Your task to perform on an android device: add a contact Image 0: 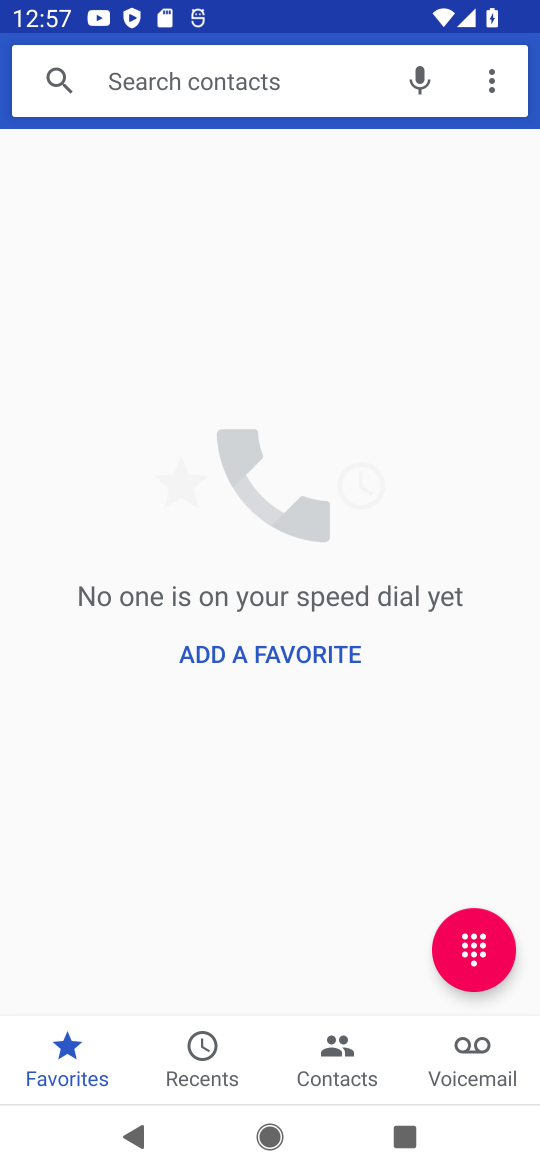
Step 0: click (304, 1060)
Your task to perform on an android device: add a contact Image 1: 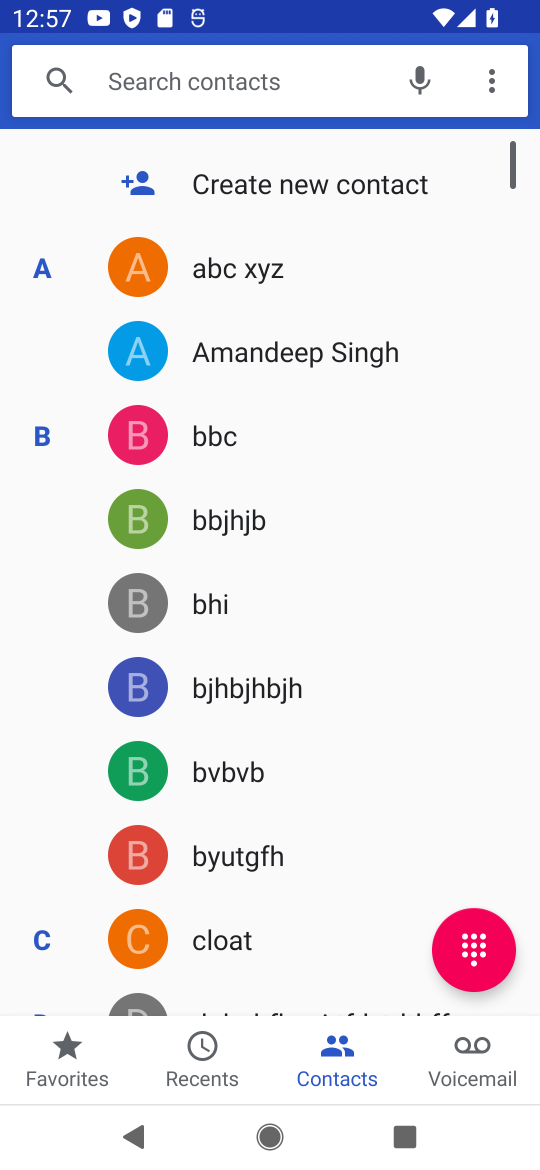
Step 1: click (464, 942)
Your task to perform on an android device: add a contact Image 2: 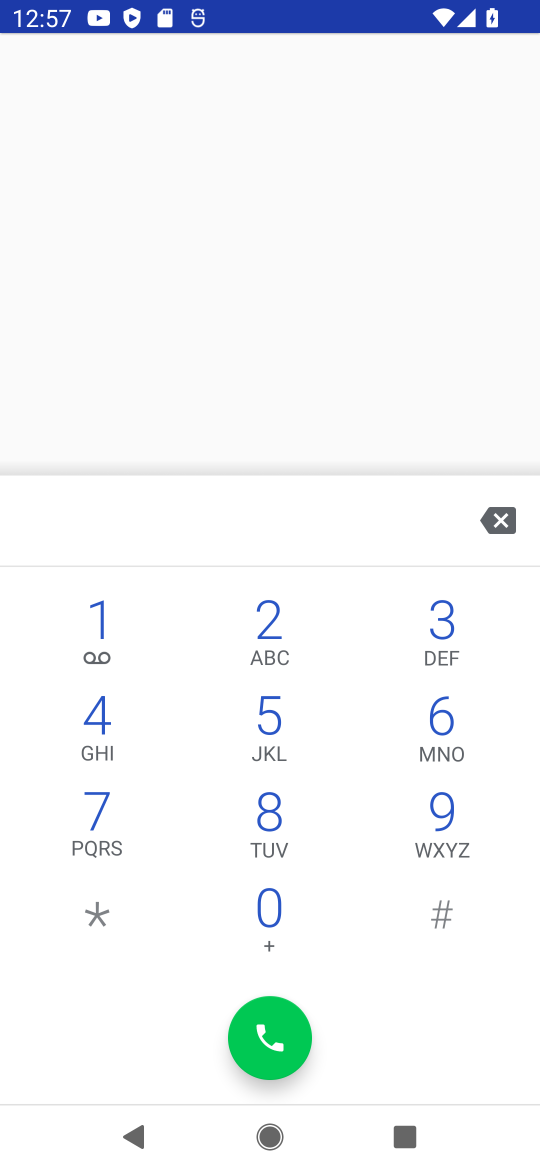
Step 2: press back button
Your task to perform on an android device: add a contact Image 3: 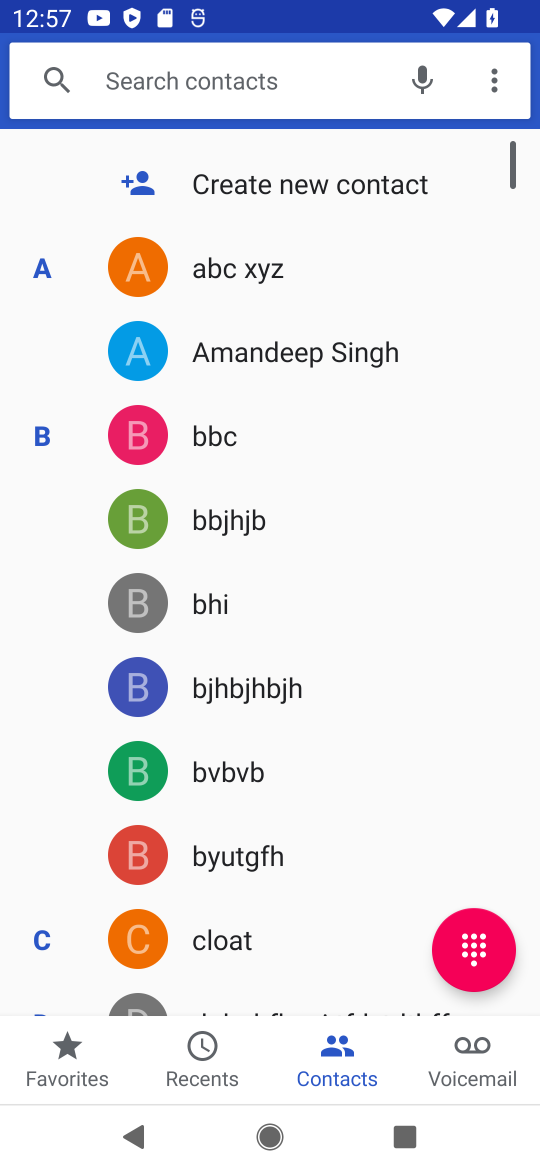
Step 3: click (262, 162)
Your task to perform on an android device: add a contact Image 4: 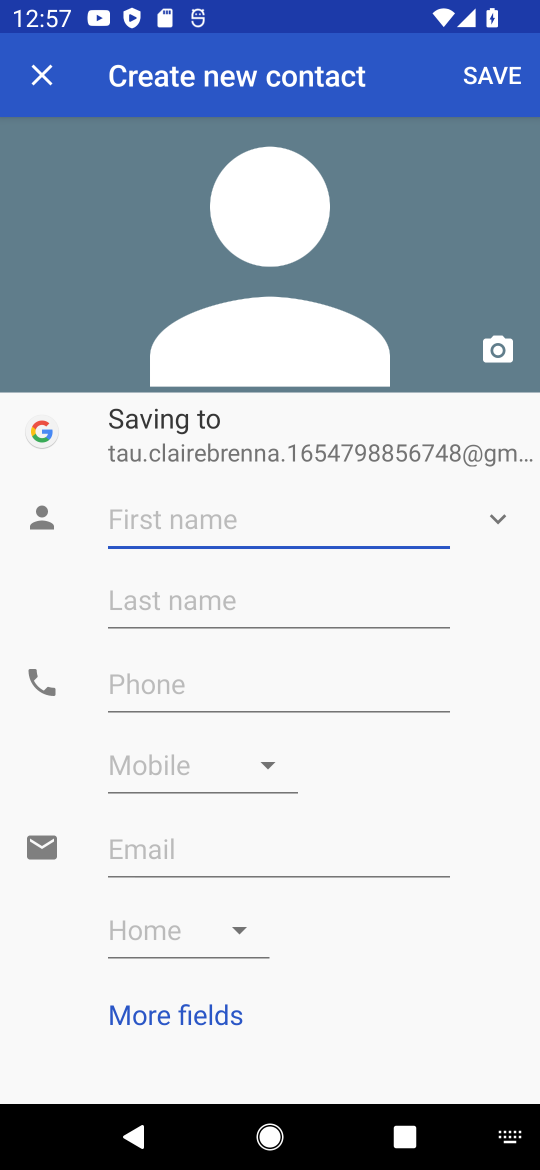
Step 4: click (160, 500)
Your task to perform on an android device: add a contact Image 5: 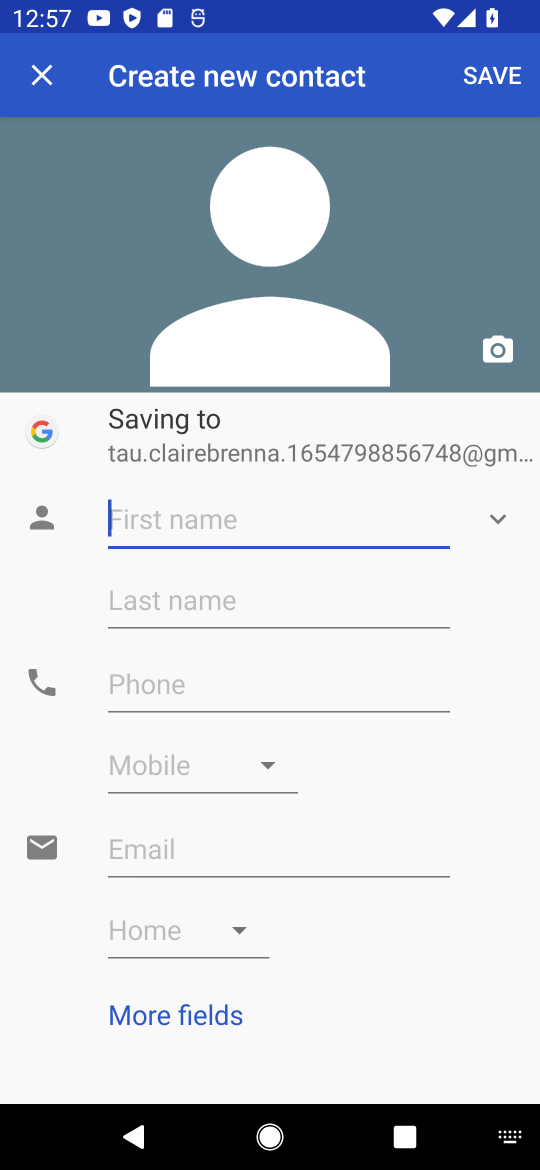
Step 5: type "fhfghf"
Your task to perform on an android device: add a contact Image 6: 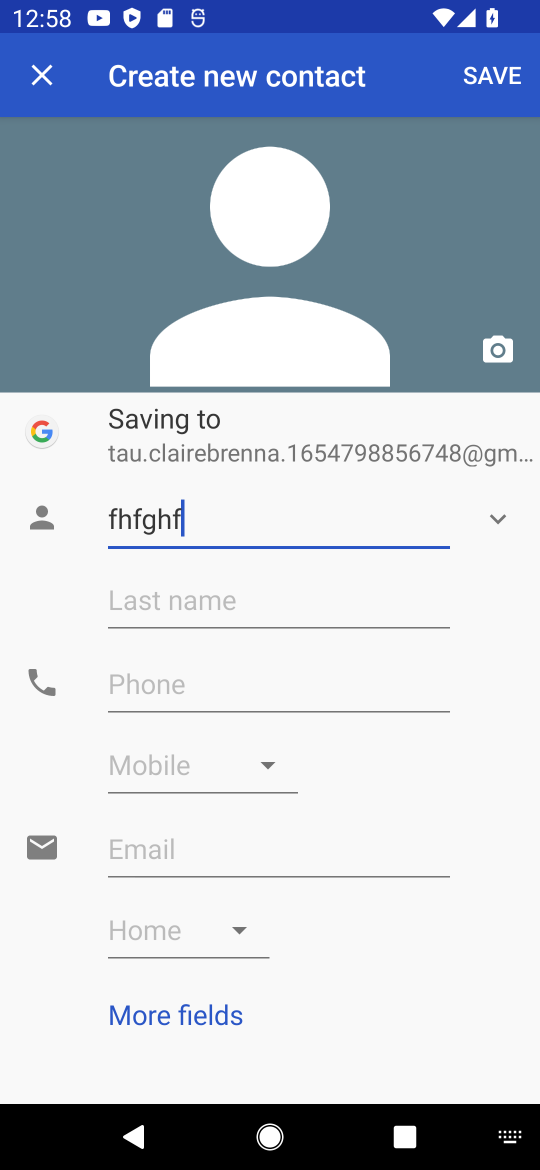
Step 6: click (157, 670)
Your task to perform on an android device: add a contact Image 7: 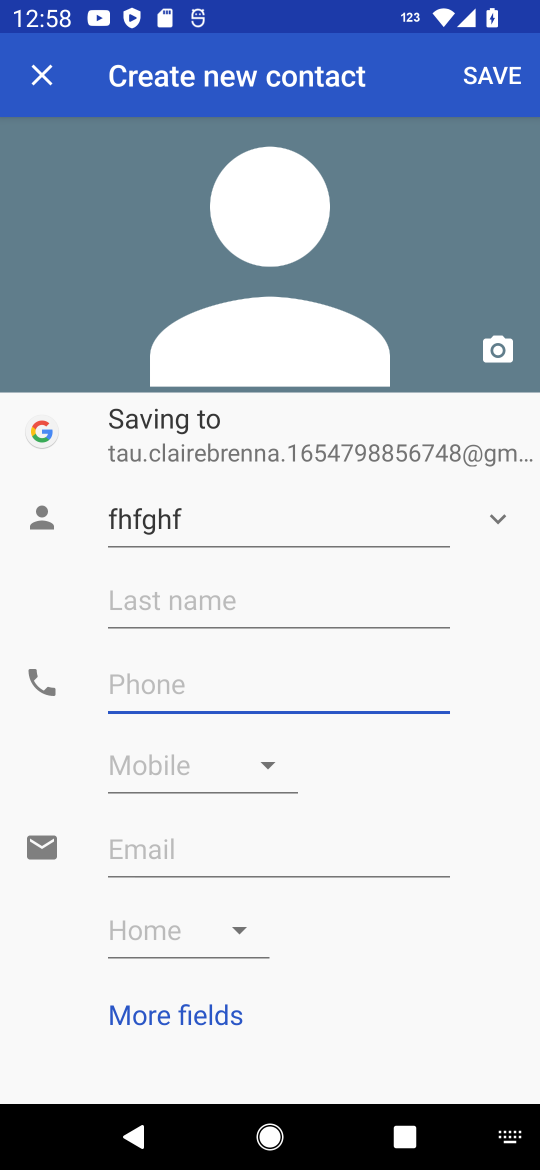
Step 7: type "87878"
Your task to perform on an android device: add a contact Image 8: 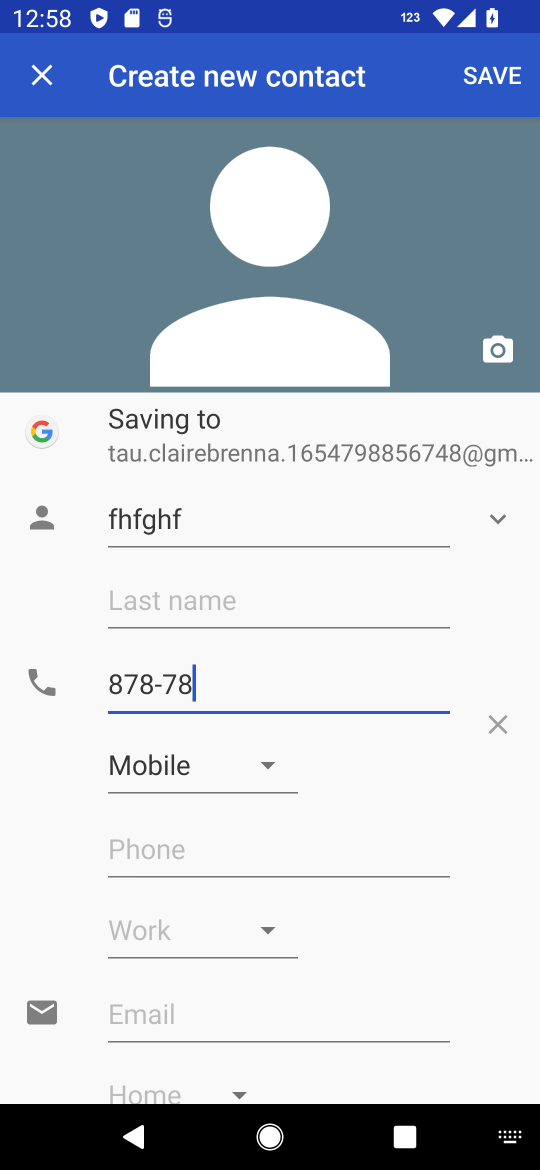
Step 8: click (497, 81)
Your task to perform on an android device: add a contact Image 9: 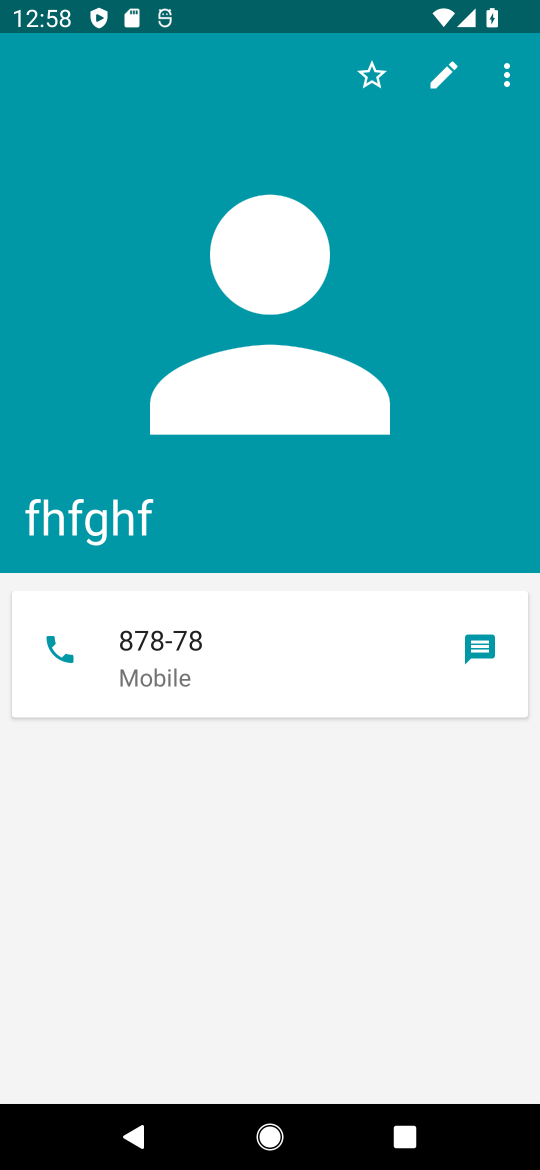
Step 9: task complete